Your task to perform on an android device: open a bookmark in the chrome app Image 0: 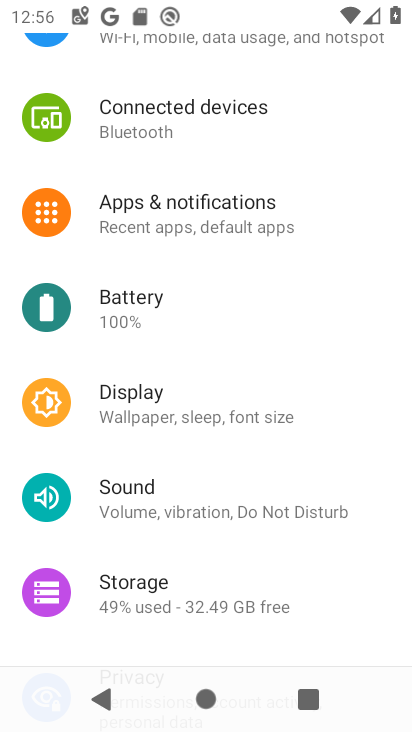
Step 0: press home button
Your task to perform on an android device: open a bookmark in the chrome app Image 1: 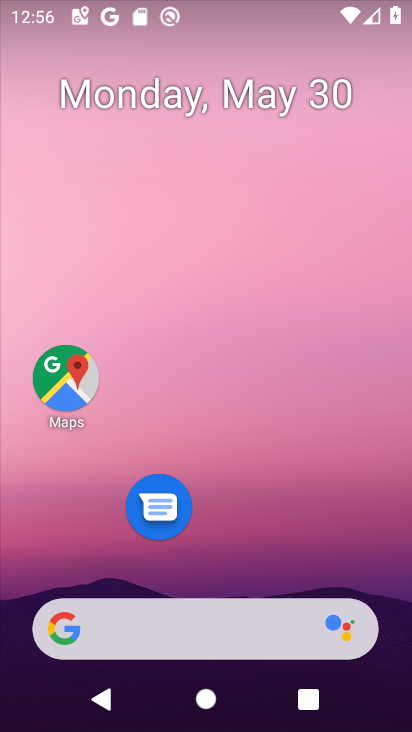
Step 1: drag from (320, 541) to (344, 103)
Your task to perform on an android device: open a bookmark in the chrome app Image 2: 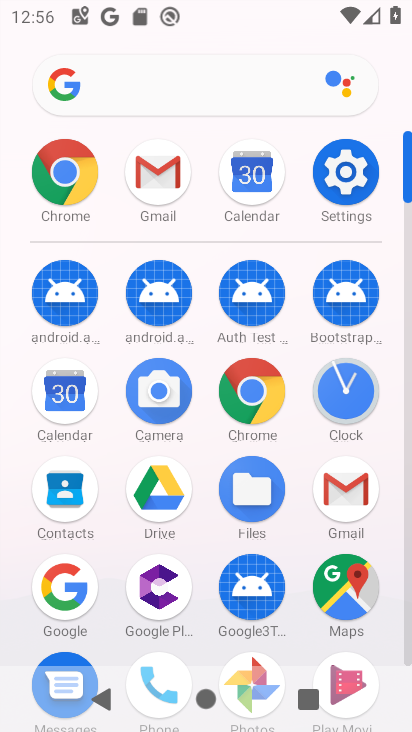
Step 2: click (249, 392)
Your task to perform on an android device: open a bookmark in the chrome app Image 3: 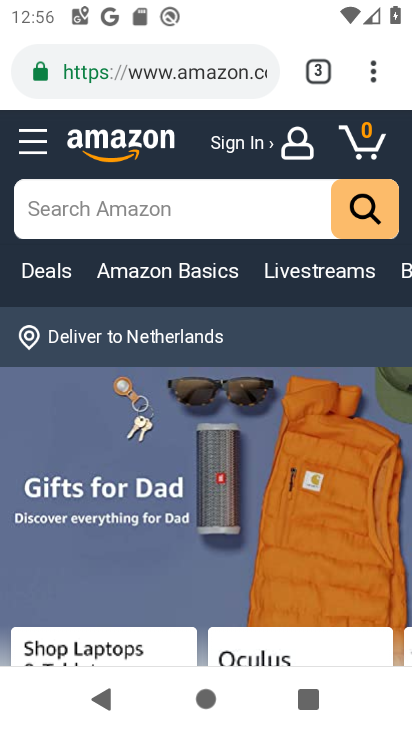
Step 3: task complete